Your task to perform on an android device: turn off priority inbox in the gmail app Image 0: 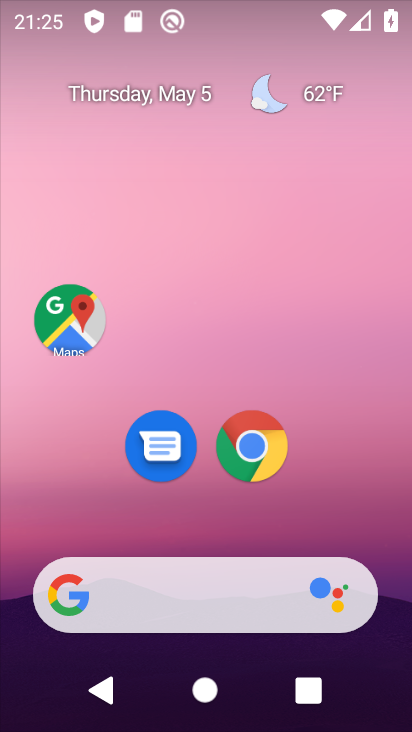
Step 0: drag from (253, 643) to (222, 283)
Your task to perform on an android device: turn off priority inbox in the gmail app Image 1: 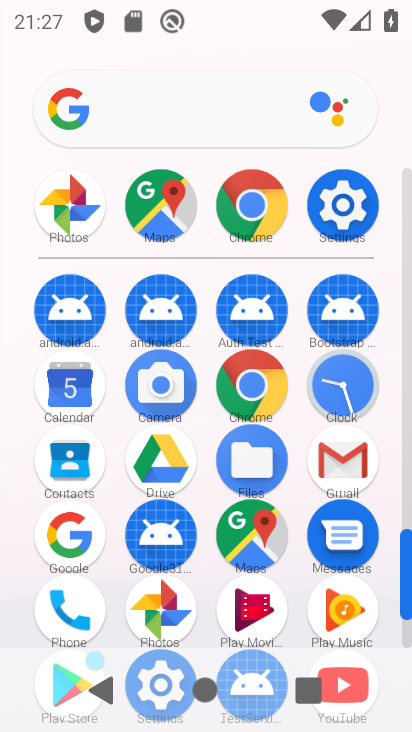
Step 1: click (331, 475)
Your task to perform on an android device: turn off priority inbox in the gmail app Image 2: 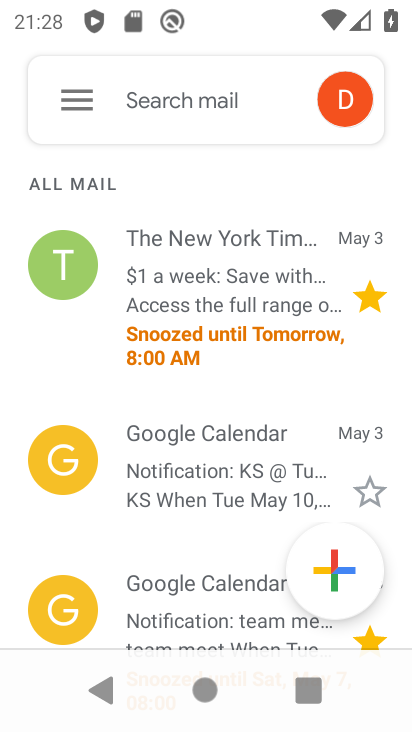
Step 2: click (90, 101)
Your task to perform on an android device: turn off priority inbox in the gmail app Image 3: 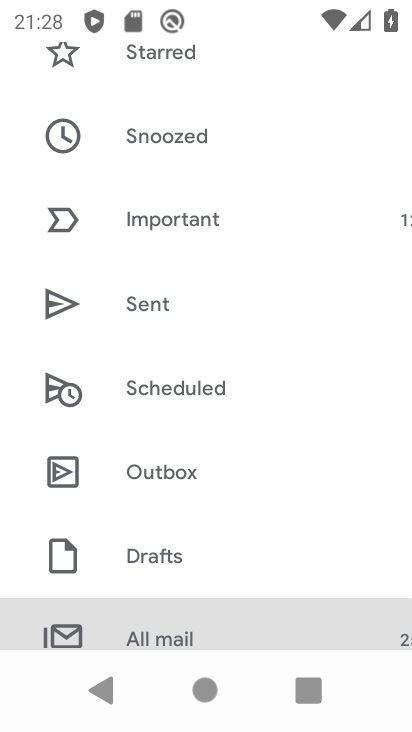
Step 3: drag from (145, 554) to (222, 216)
Your task to perform on an android device: turn off priority inbox in the gmail app Image 4: 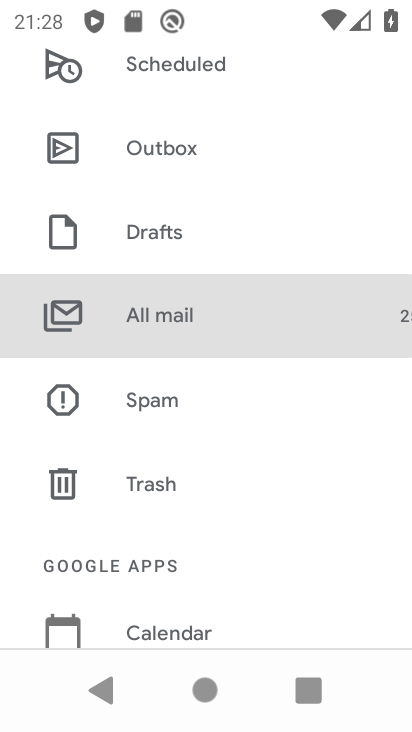
Step 4: drag from (160, 596) to (227, 193)
Your task to perform on an android device: turn off priority inbox in the gmail app Image 5: 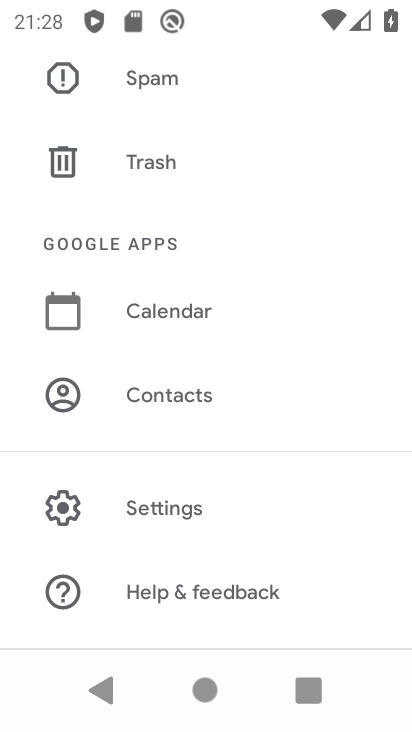
Step 5: click (139, 507)
Your task to perform on an android device: turn off priority inbox in the gmail app Image 6: 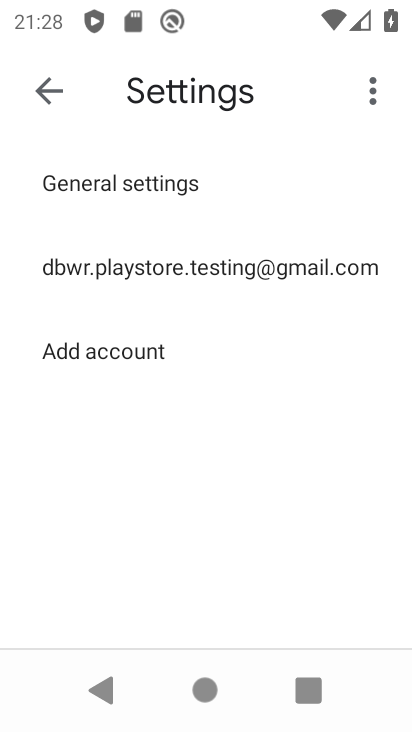
Step 6: click (131, 272)
Your task to perform on an android device: turn off priority inbox in the gmail app Image 7: 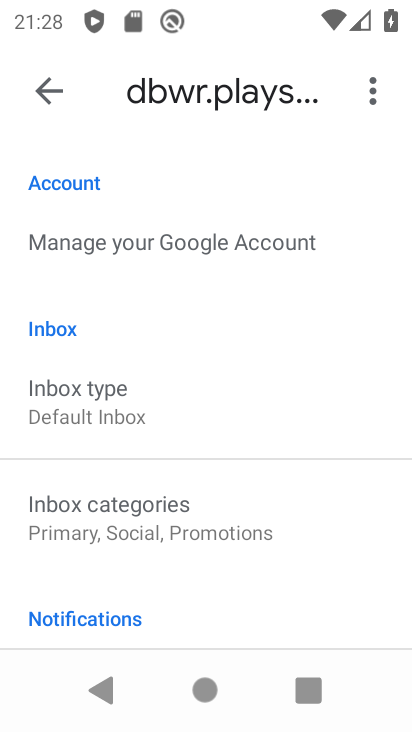
Step 7: click (167, 408)
Your task to perform on an android device: turn off priority inbox in the gmail app Image 8: 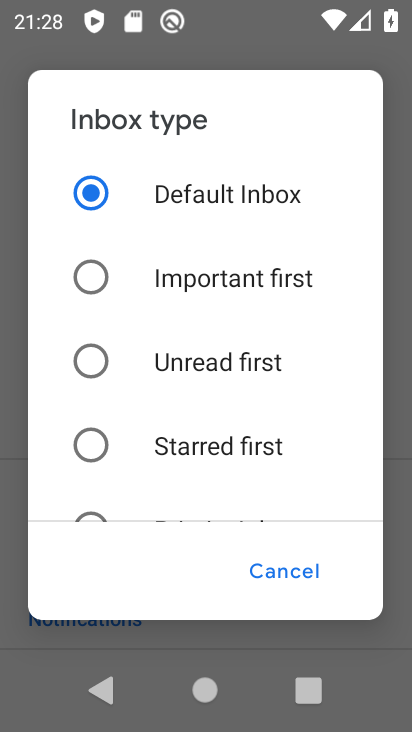
Step 8: task complete